Your task to perform on an android device: turn off wifi Image 0: 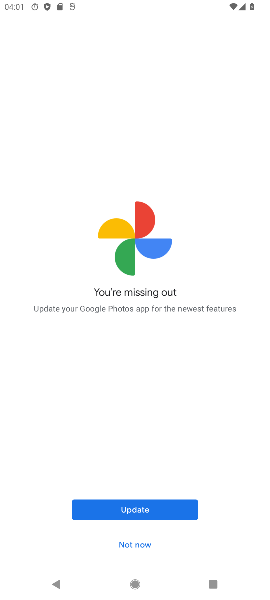
Step 0: press home button
Your task to perform on an android device: turn off wifi Image 1: 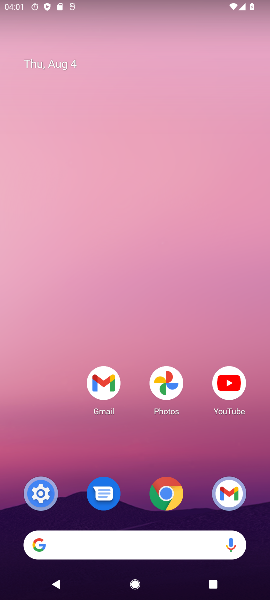
Step 1: drag from (32, 532) to (152, 1)
Your task to perform on an android device: turn off wifi Image 2: 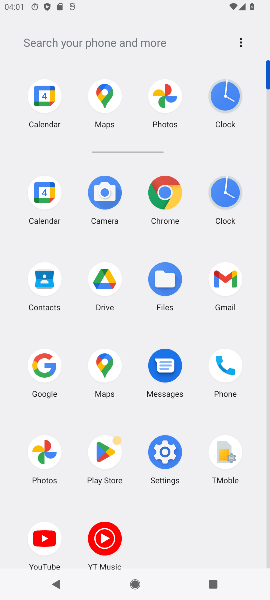
Step 2: click (155, 462)
Your task to perform on an android device: turn off wifi Image 3: 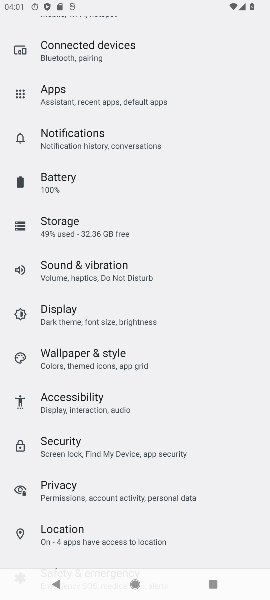
Step 3: drag from (161, 139) to (136, 415)
Your task to perform on an android device: turn off wifi Image 4: 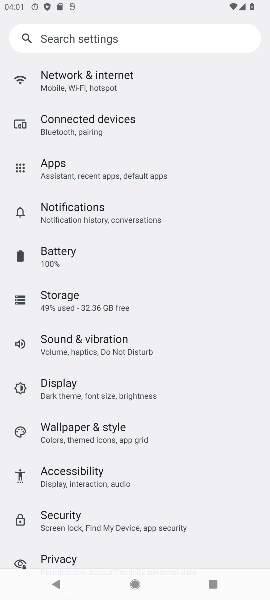
Step 4: click (129, 81)
Your task to perform on an android device: turn off wifi Image 5: 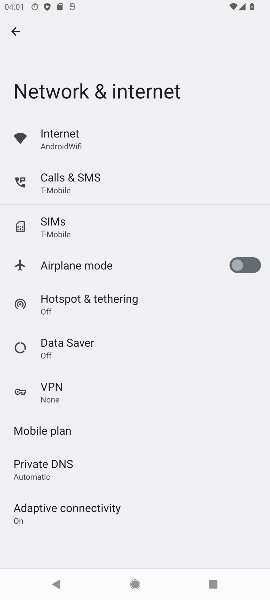
Step 5: click (71, 129)
Your task to perform on an android device: turn off wifi Image 6: 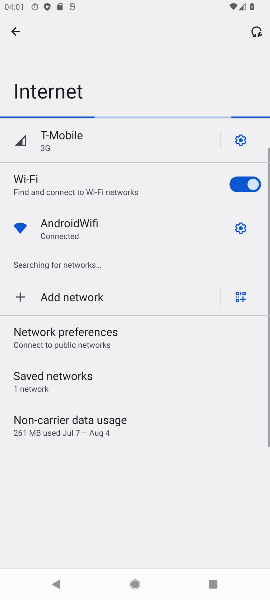
Step 6: click (251, 193)
Your task to perform on an android device: turn off wifi Image 7: 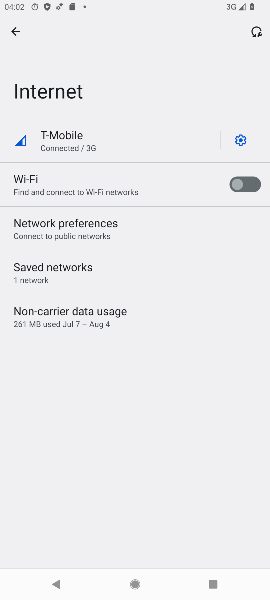
Step 7: task complete